Your task to perform on an android device: Go to location settings Image 0: 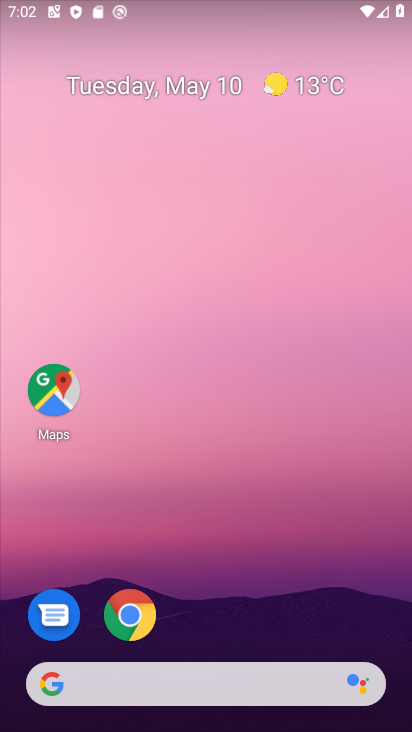
Step 0: drag from (394, 343) to (312, 9)
Your task to perform on an android device: Go to location settings Image 1: 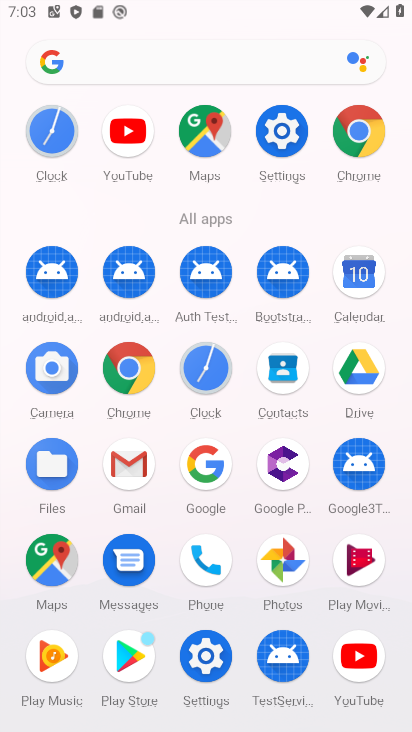
Step 1: click (280, 124)
Your task to perform on an android device: Go to location settings Image 2: 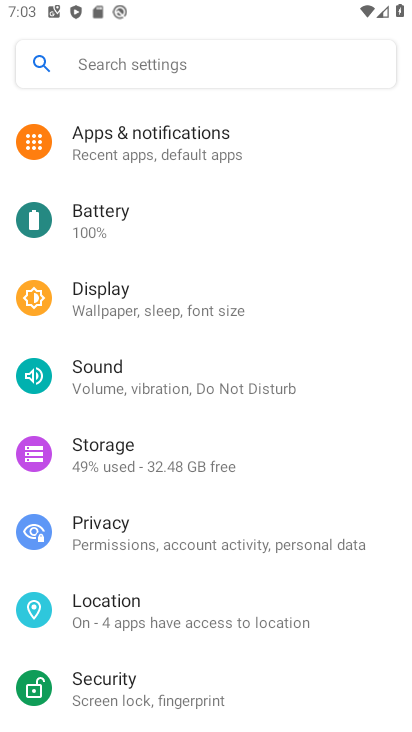
Step 2: click (132, 605)
Your task to perform on an android device: Go to location settings Image 3: 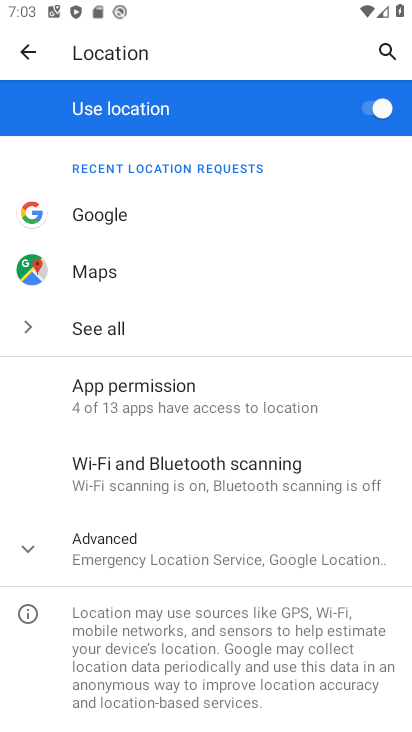
Step 3: task complete